Your task to perform on an android device: open sync settings in chrome Image 0: 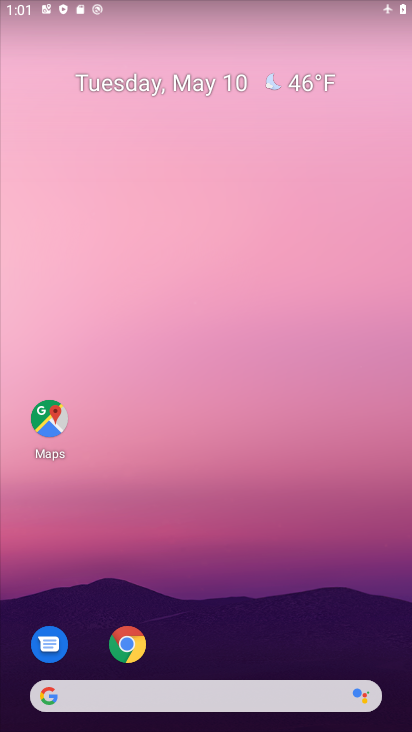
Step 0: drag from (227, 627) to (277, 311)
Your task to perform on an android device: open sync settings in chrome Image 1: 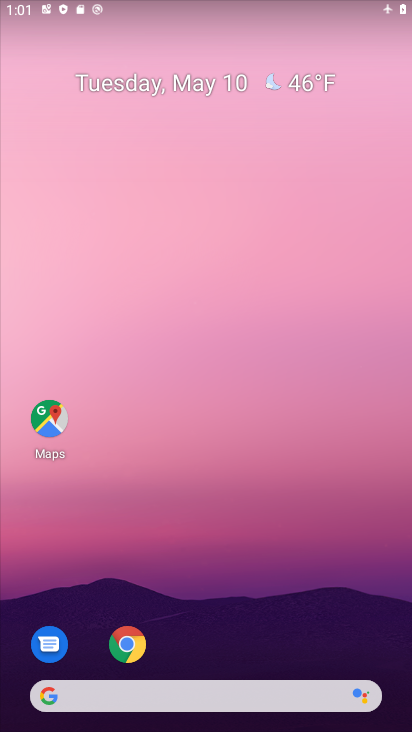
Step 1: drag from (253, 622) to (266, 172)
Your task to perform on an android device: open sync settings in chrome Image 2: 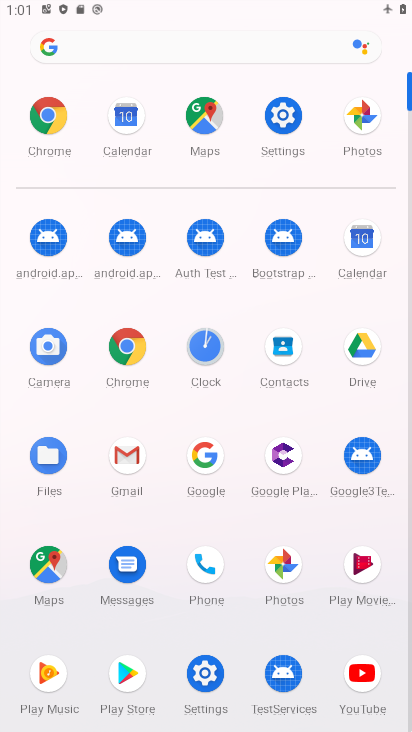
Step 2: click (143, 366)
Your task to perform on an android device: open sync settings in chrome Image 3: 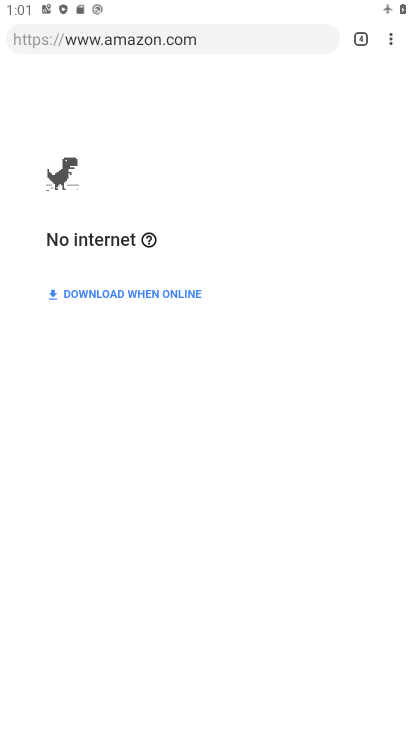
Step 3: click (394, 50)
Your task to perform on an android device: open sync settings in chrome Image 4: 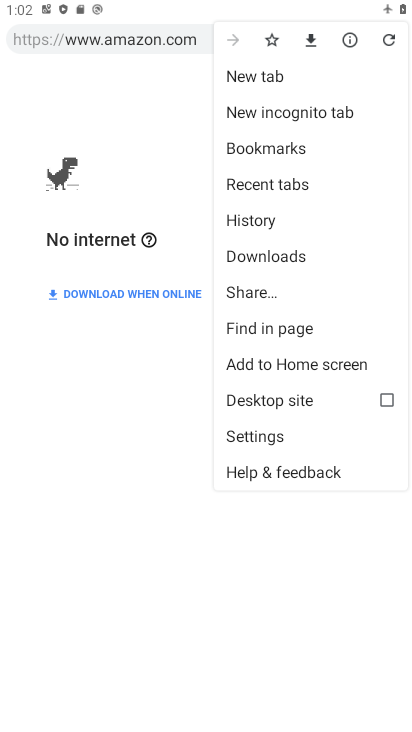
Step 4: click (286, 437)
Your task to perform on an android device: open sync settings in chrome Image 5: 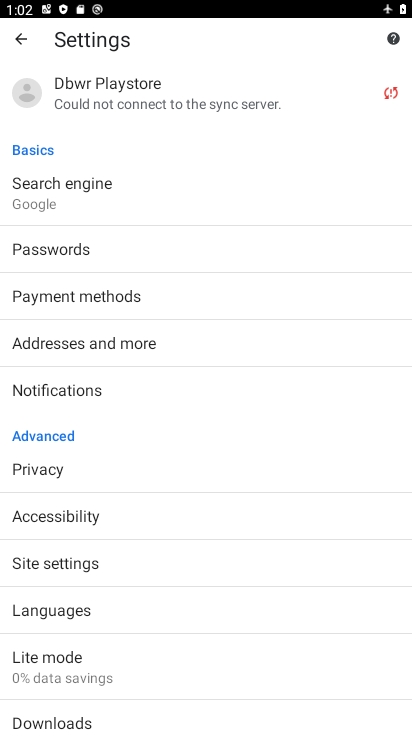
Step 5: click (221, 95)
Your task to perform on an android device: open sync settings in chrome Image 6: 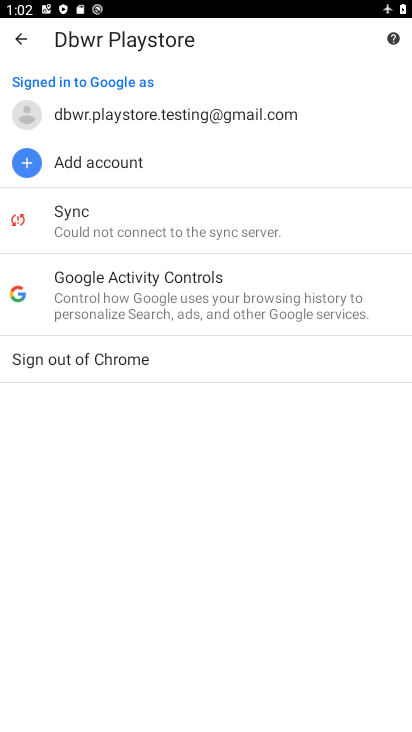
Step 6: click (199, 226)
Your task to perform on an android device: open sync settings in chrome Image 7: 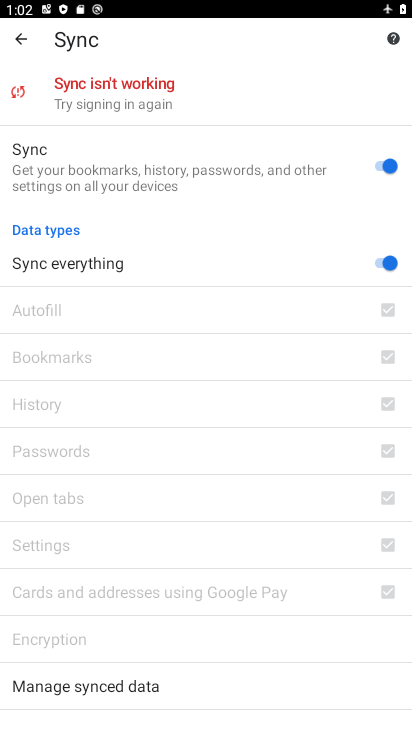
Step 7: task complete